Your task to perform on an android device: turn on airplane mode Image 0: 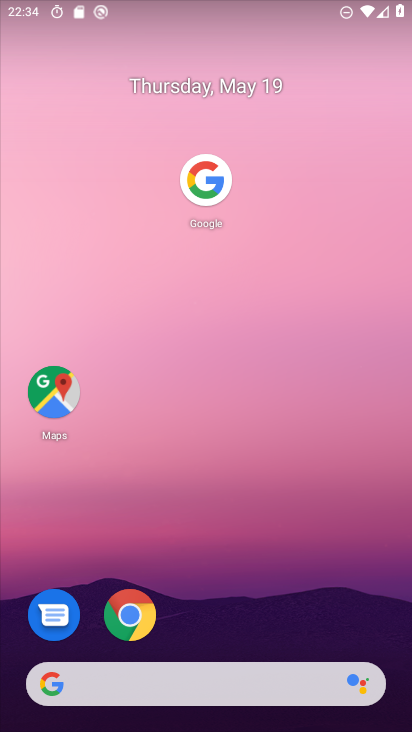
Step 0: drag from (235, 582) to (243, 79)
Your task to perform on an android device: turn on airplane mode Image 1: 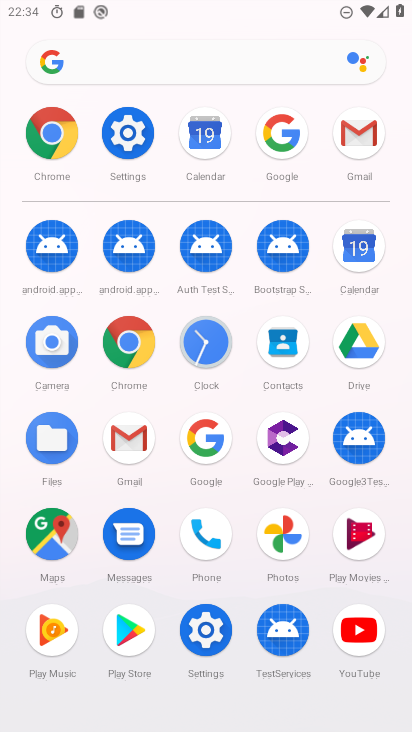
Step 1: click (124, 128)
Your task to perform on an android device: turn on airplane mode Image 2: 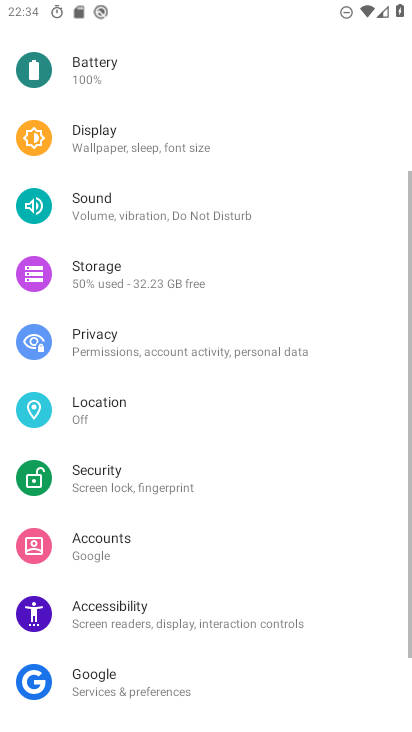
Step 2: drag from (175, 124) to (337, 638)
Your task to perform on an android device: turn on airplane mode Image 3: 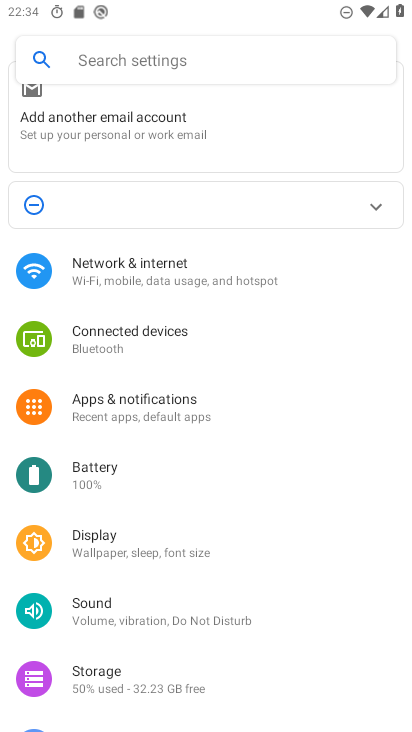
Step 3: click (168, 281)
Your task to perform on an android device: turn on airplane mode Image 4: 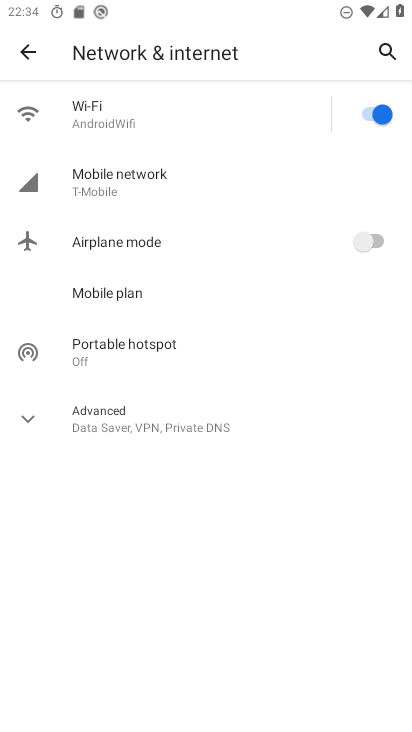
Step 4: click (382, 235)
Your task to perform on an android device: turn on airplane mode Image 5: 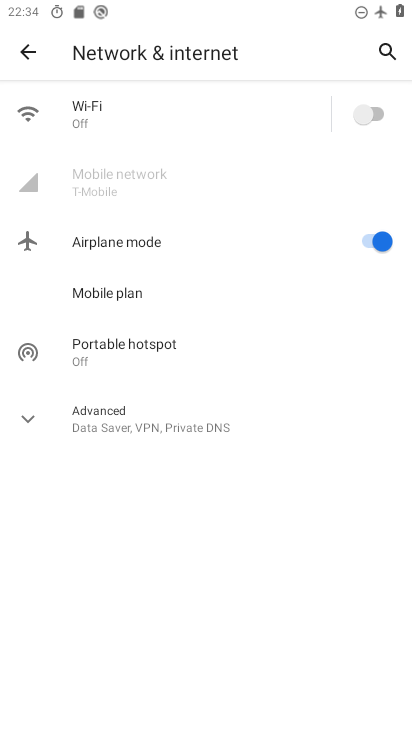
Step 5: task complete